Your task to perform on an android device: Go to battery settings Image 0: 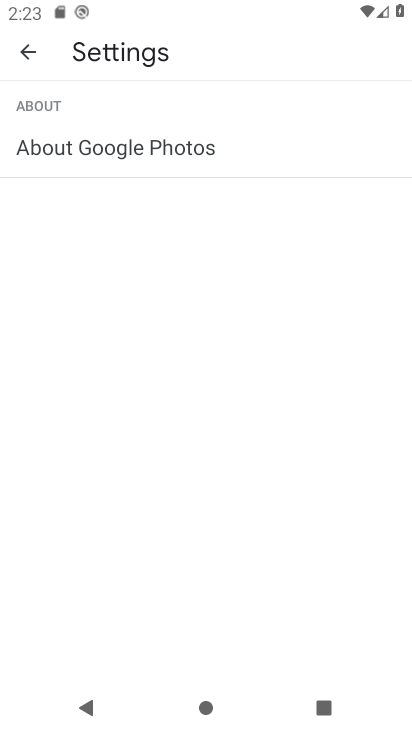
Step 0: press back button
Your task to perform on an android device: Go to battery settings Image 1: 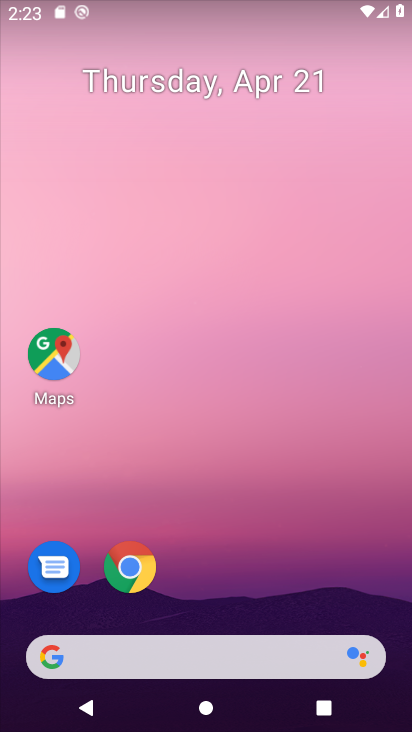
Step 1: drag from (322, 524) to (290, 10)
Your task to perform on an android device: Go to battery settings Image 2: 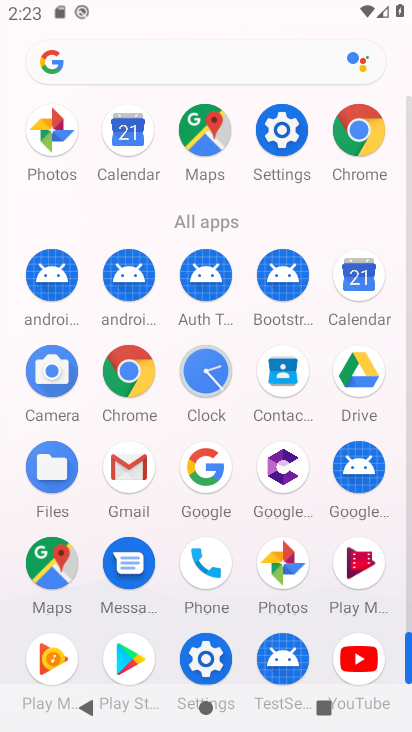
Step 2: click (204, 656)
Your task to perform on an android device: Go to battery settings Image 3: 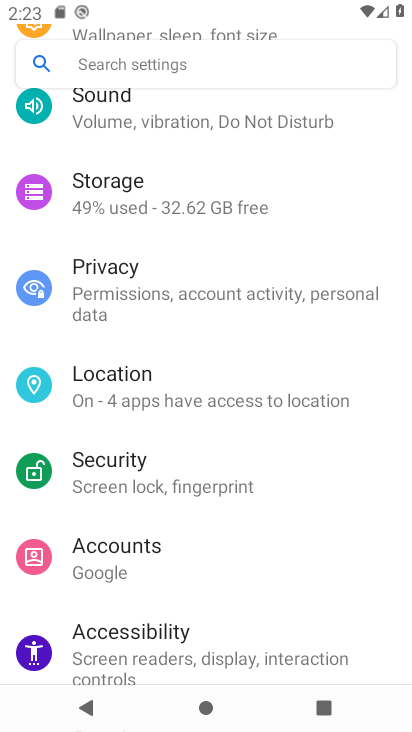
Step 3: drag from (277, 248) to (274, 644)
Your task to perform on an android device: Go to battery settings Image 4: 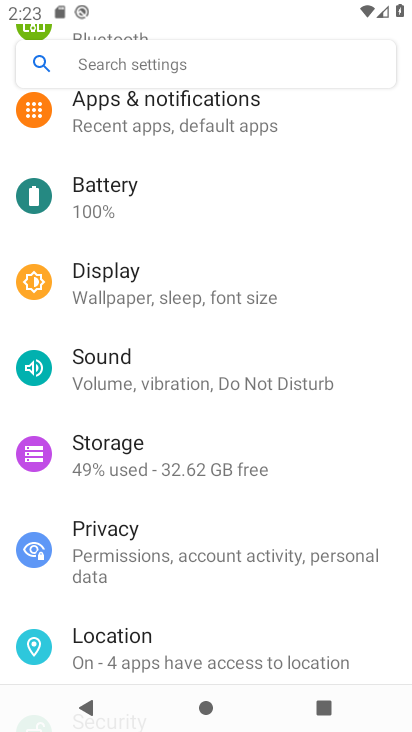
Step 4: click (135, 110)
Your task to perform on an android device: Go to battery settings Image 5: 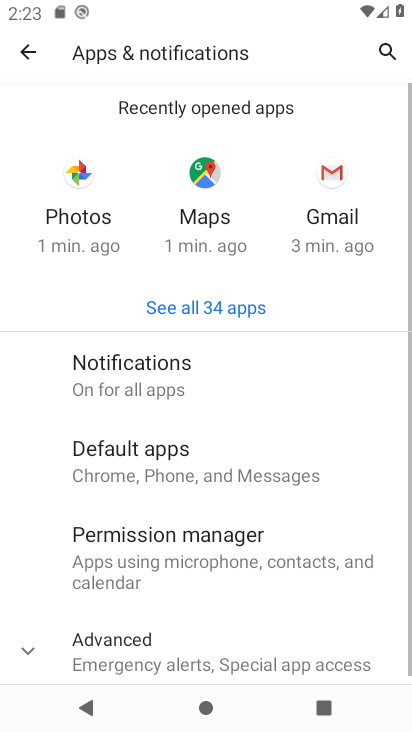
Step 5: click (30, 51)
Your task to perform on an android device: Go to battery settings Image 6: 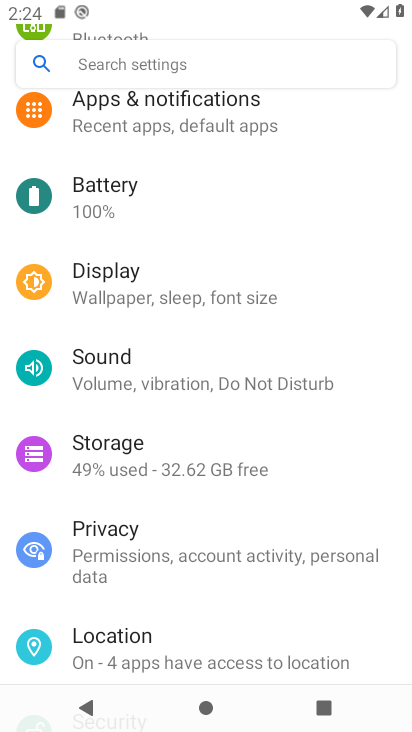
Step 6: click (112, 206)
Your task to perform on an android device: Go to battery settings Image 7: 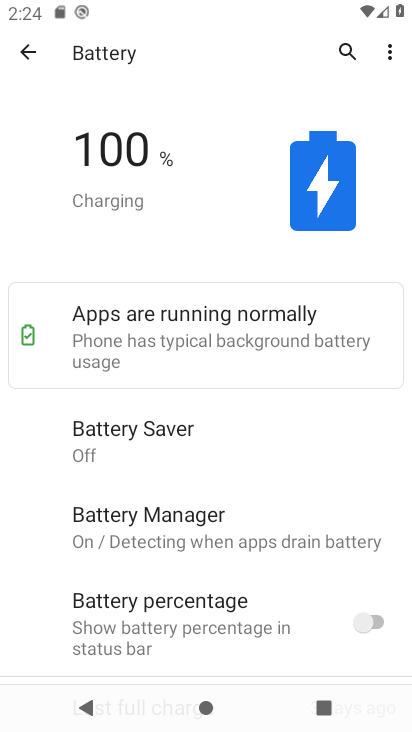
Step 7: task complete